Your task to perform on an android device: change your default location settings in chrome Image 0: 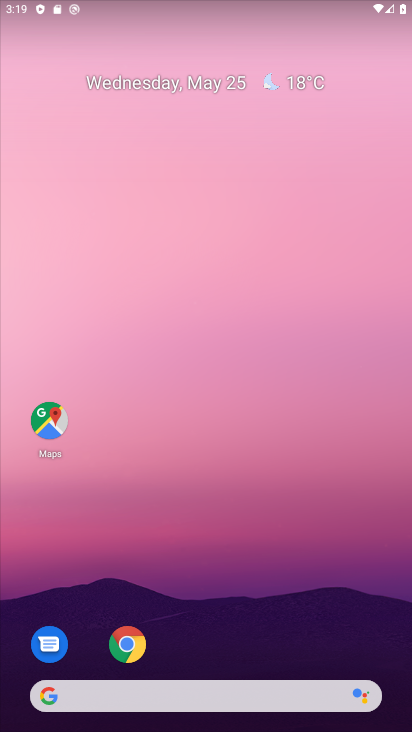
Step 0: drag from (262, 616) to (208, 146)
Your task to perform on an android device: change your default location settings in chrome Image 1: 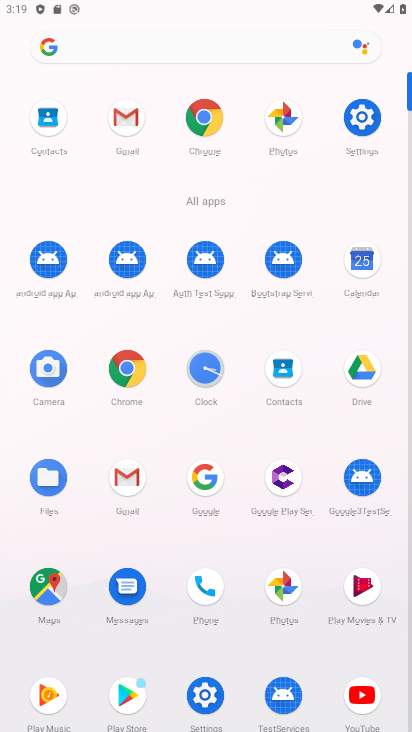
Step 1: click (205, 116)
Your task to perform on an android device: change your default location settings in chrome Image 2: 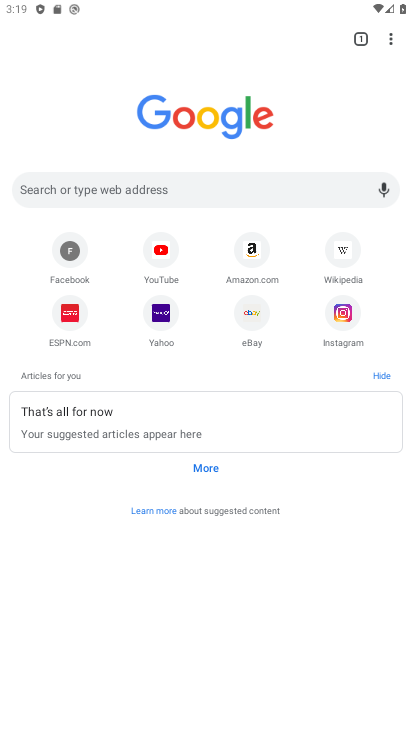
Step 2: click (392, 40)
Your task to perform on an android device: change your default location settings in chrome Image 3: 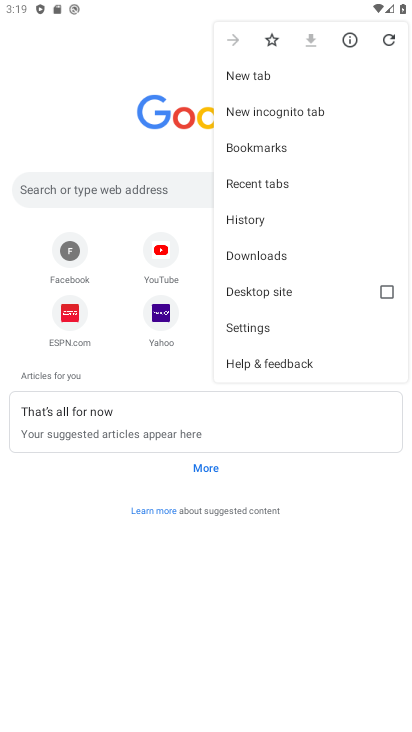
Step 3: click (248, 324)
Your task to perform on an android device: change your default location settings in chrome Image 4: 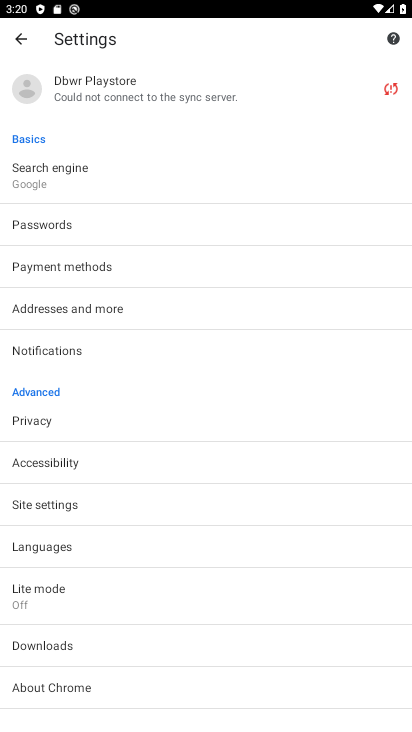
Step 4: click (53, 505)
Your task to perform on an android device: change your default location settings in chrome Image 5: 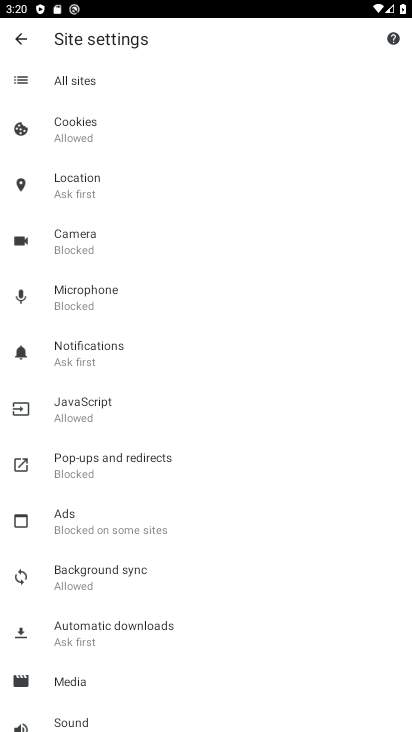
Step 5: click (81, 189)
Your task to perform on an android device: change your default location settings in chrome Image 6: 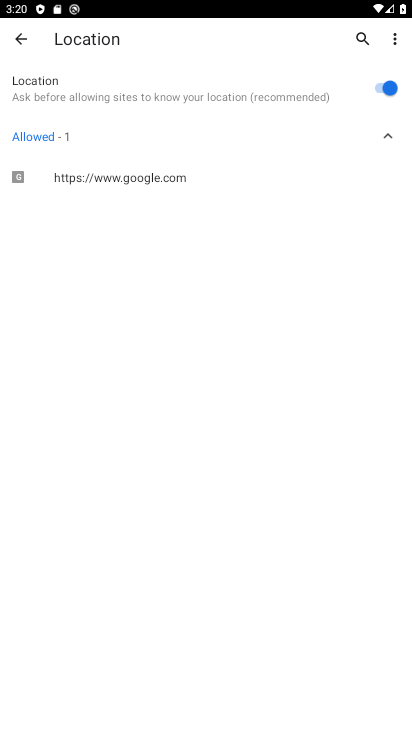
Step 6: task complete